Your task to perform on an android device: Open the calendar and show me this week's events Image 0: 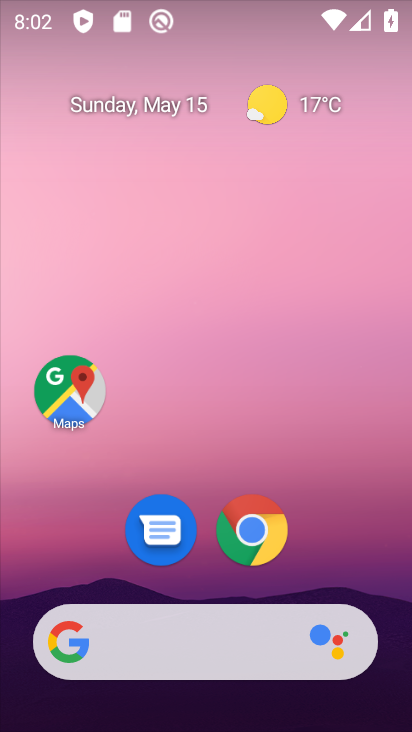
Step 0: drag from (227, 726) to (222, 162)
Your task to perform on an android device: Open the calendar and show me this week's events Image 1: 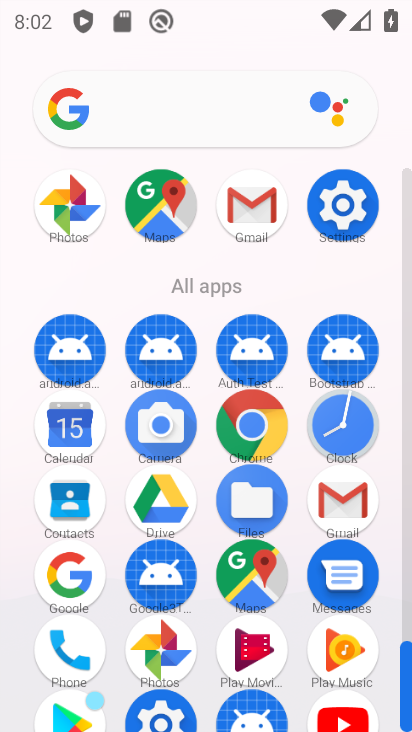
Step 1: click (64, 433)
Your task to perform on an android device: Open the calendar and show me this week's events Image 2: 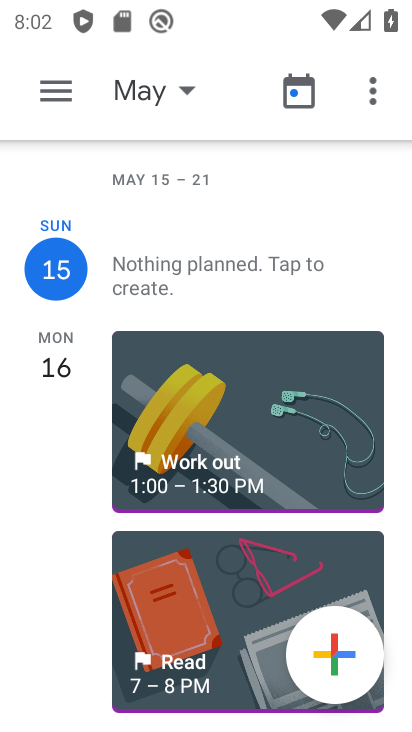
Step 2: click (48, 94)
Your task to perform on an android device: Open the calendar and show me this week's events Image 3: 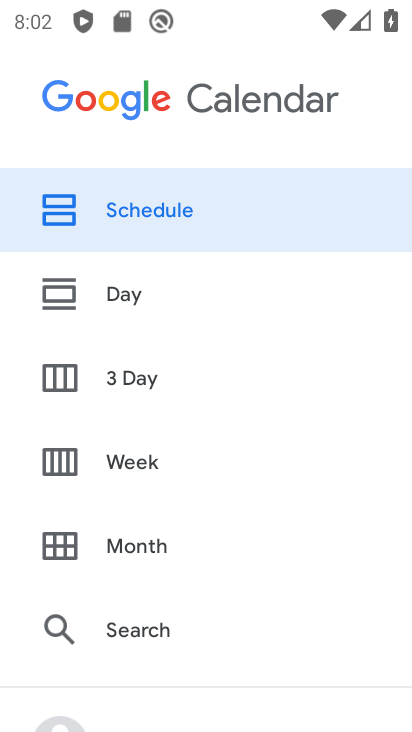
Step 3: drag from (137, 621) to (140, 198)
Your task to perform on an android device: Open the calendar and show me this week's events Image 4: 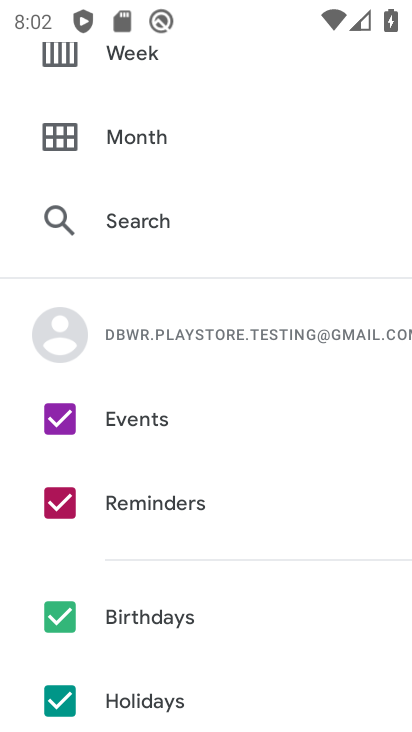
Step 4: click (64, 693)
Your task to perform on an android device: Open the calendar and show me this week's events Image 5: 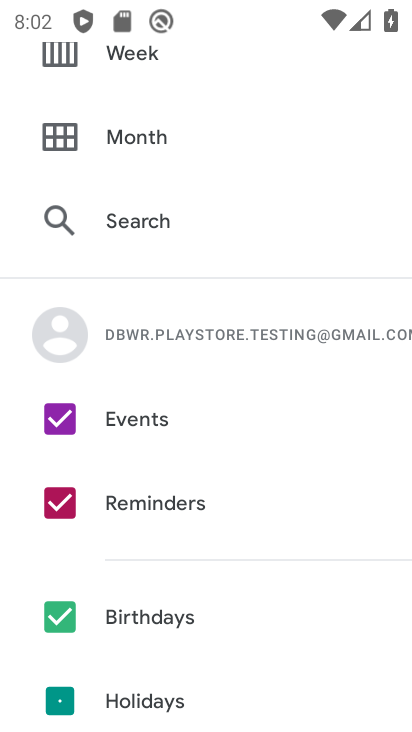
Step 5: drag from (330, 646) to (331, 455)
Your task to perform on an android device: Open the calendar and show me this week's events Image 6: 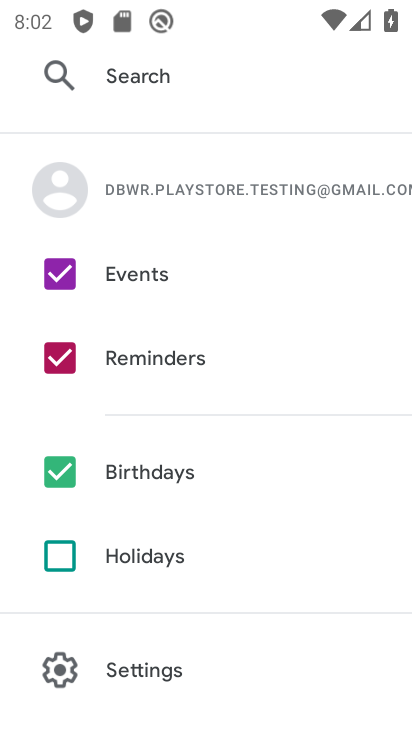
Step 6: click (60, 360)
Your task to perform on an android device: Open the calendar and show me this week's events Image 7: 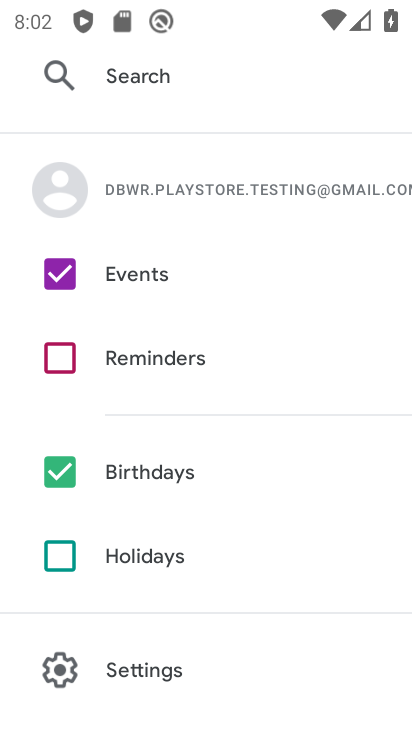
Step 7: click (57, 473)
Your task to perform on an android device: Open the calendar and show me this week's events Image 8: 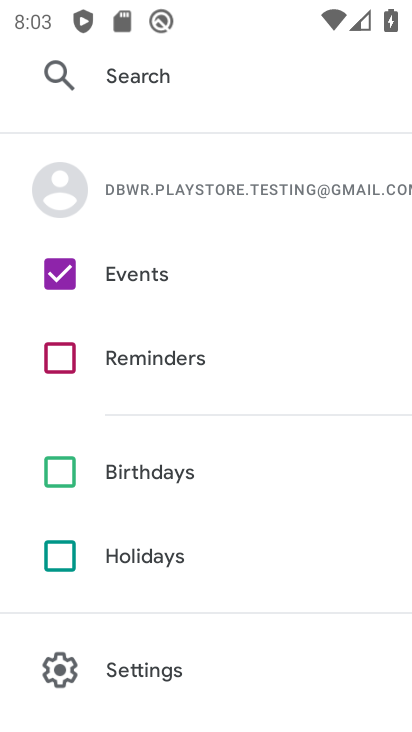
Step 8: drag from (301, 106) to (314, 478)
Your task to perform on an android device: Open the calendar and show me this week's events Image 9: 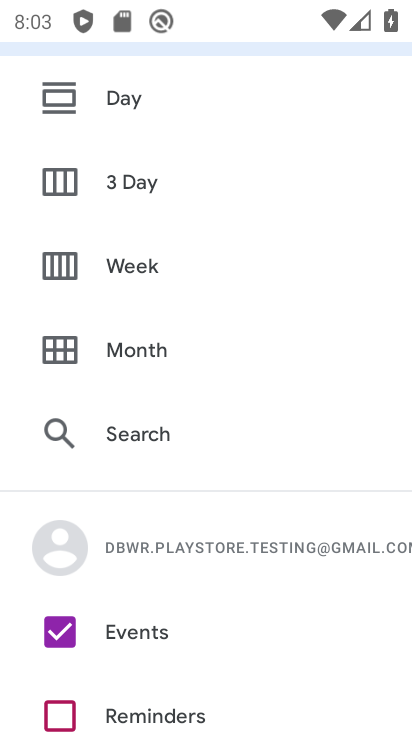
Step 9: click (139, 267)
Your task to perform on an android device: Open the calendar and show me this week's events Image 10: 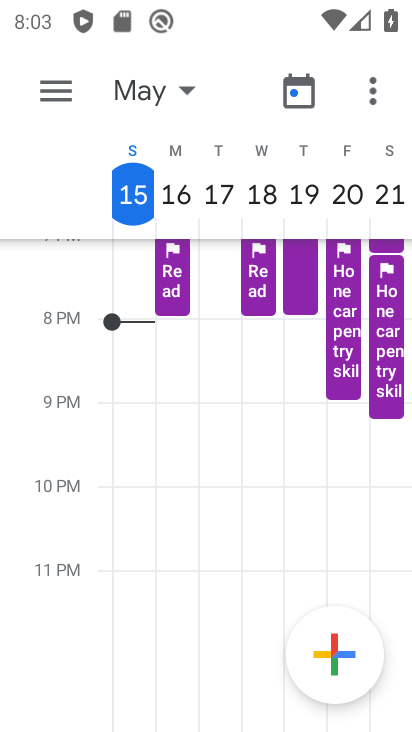
Step 10: task complete